Your task to perform on an android device: turn off airplane mode Image 0: 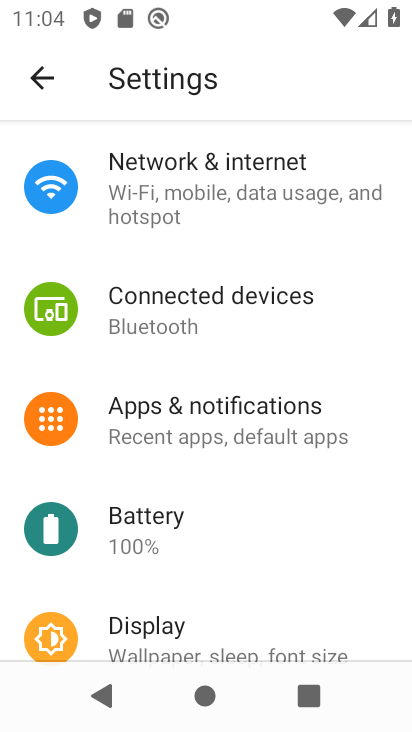
Step 0: click (237, 199)
Your task to perform on an android device: turn off airplane mode Image 1: 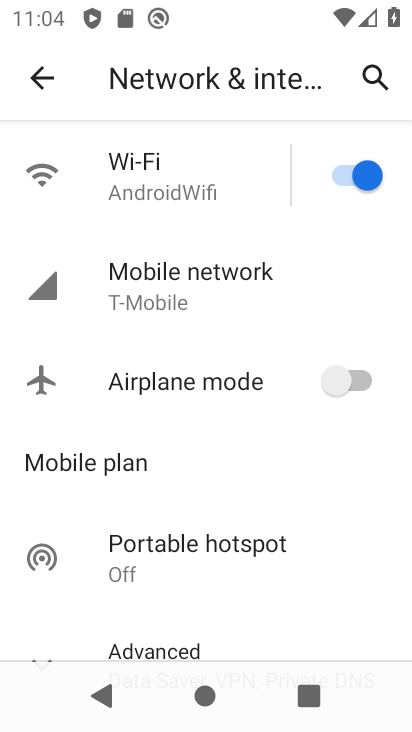
Step 1: task complete